Your task to perform on an android device: turn off location history Image 0: 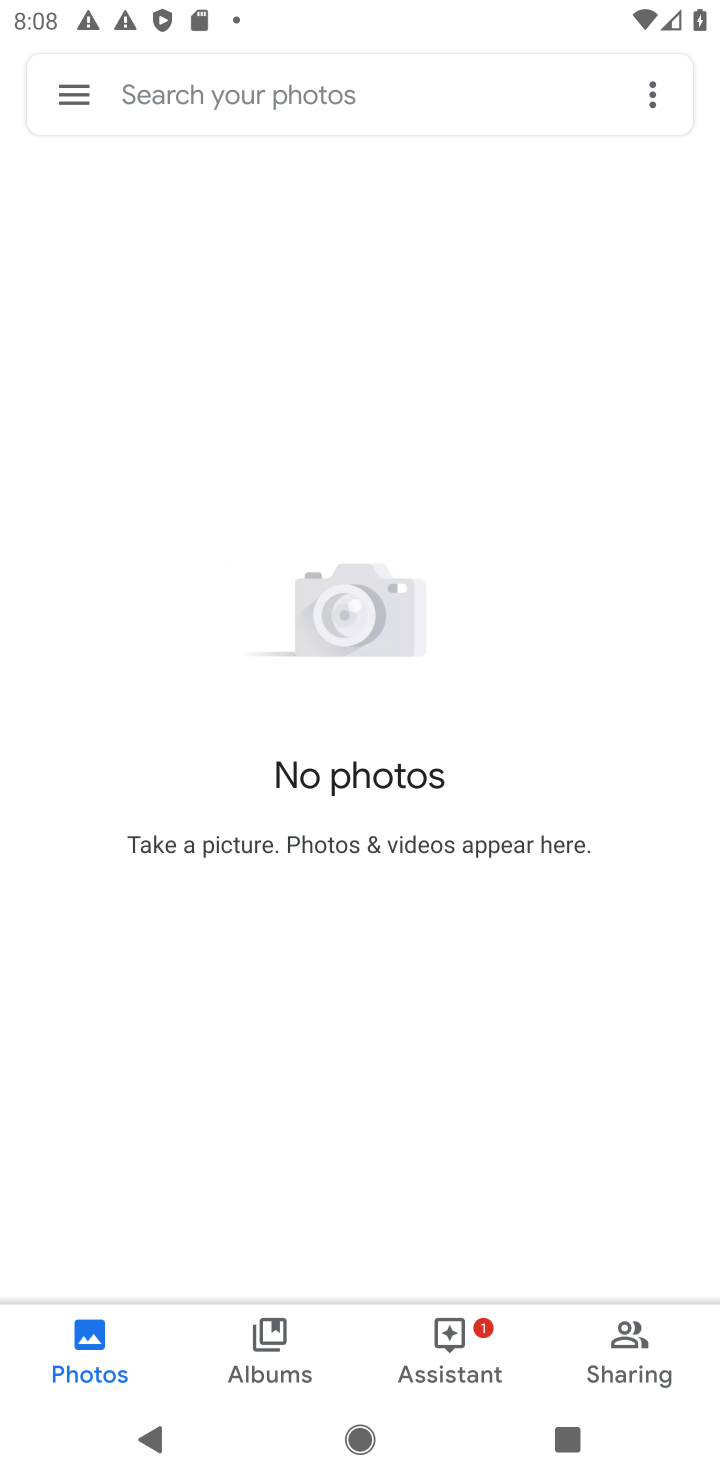
Step 0: press home button
Your task to perform on an android device: turn off location history Image 1: 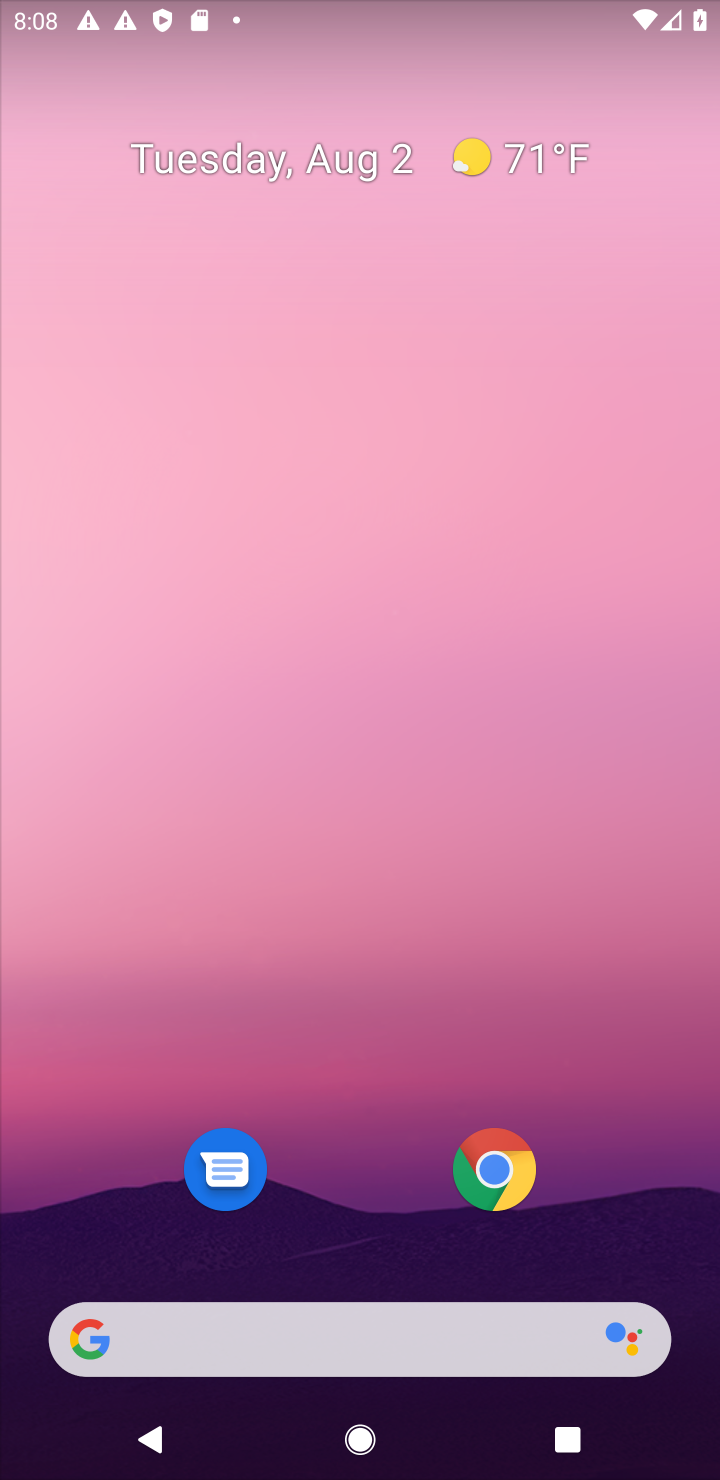
Step 1: drag from (335, 1132) to (401, 2)
Your task to perform on an android device: turn off location history Image 2: 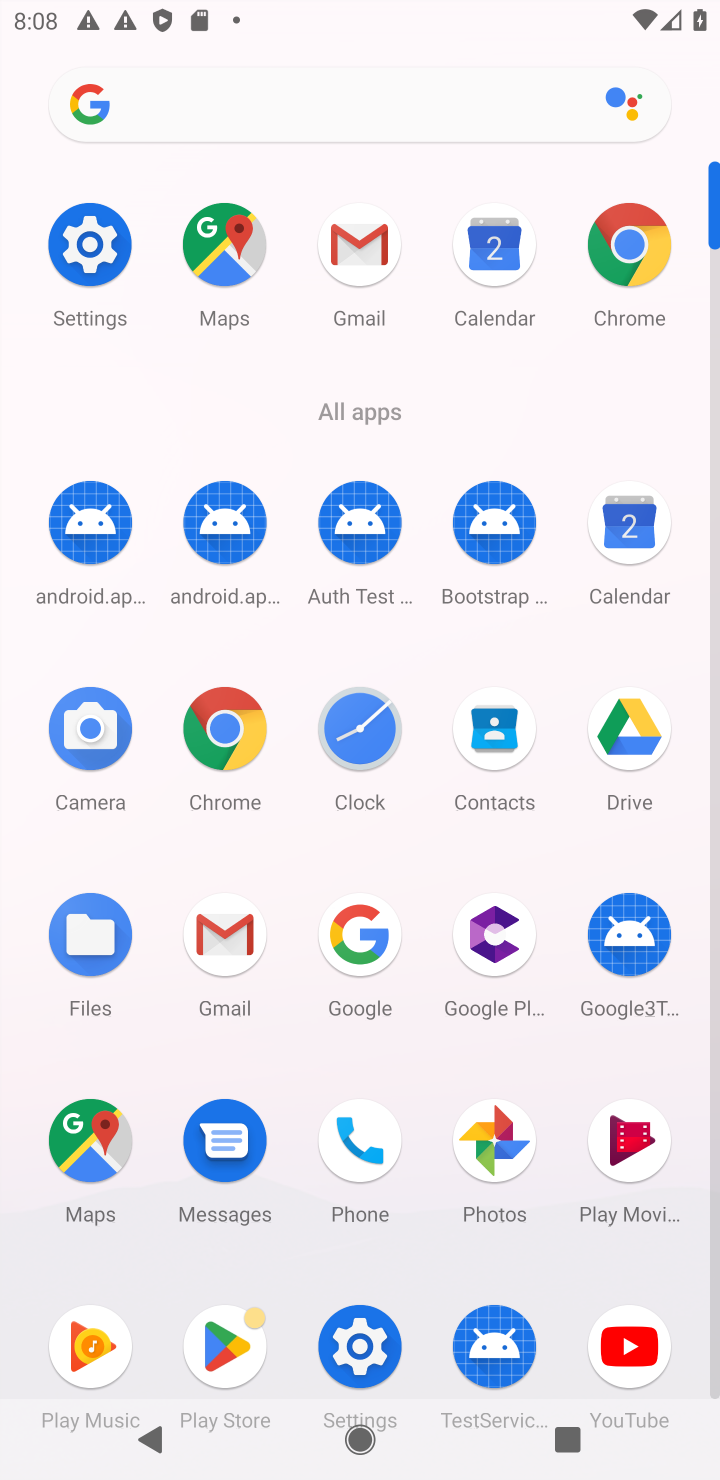
Step 2: click (88, 237)
Your task to perform on an android device: turn off location history Image 3: 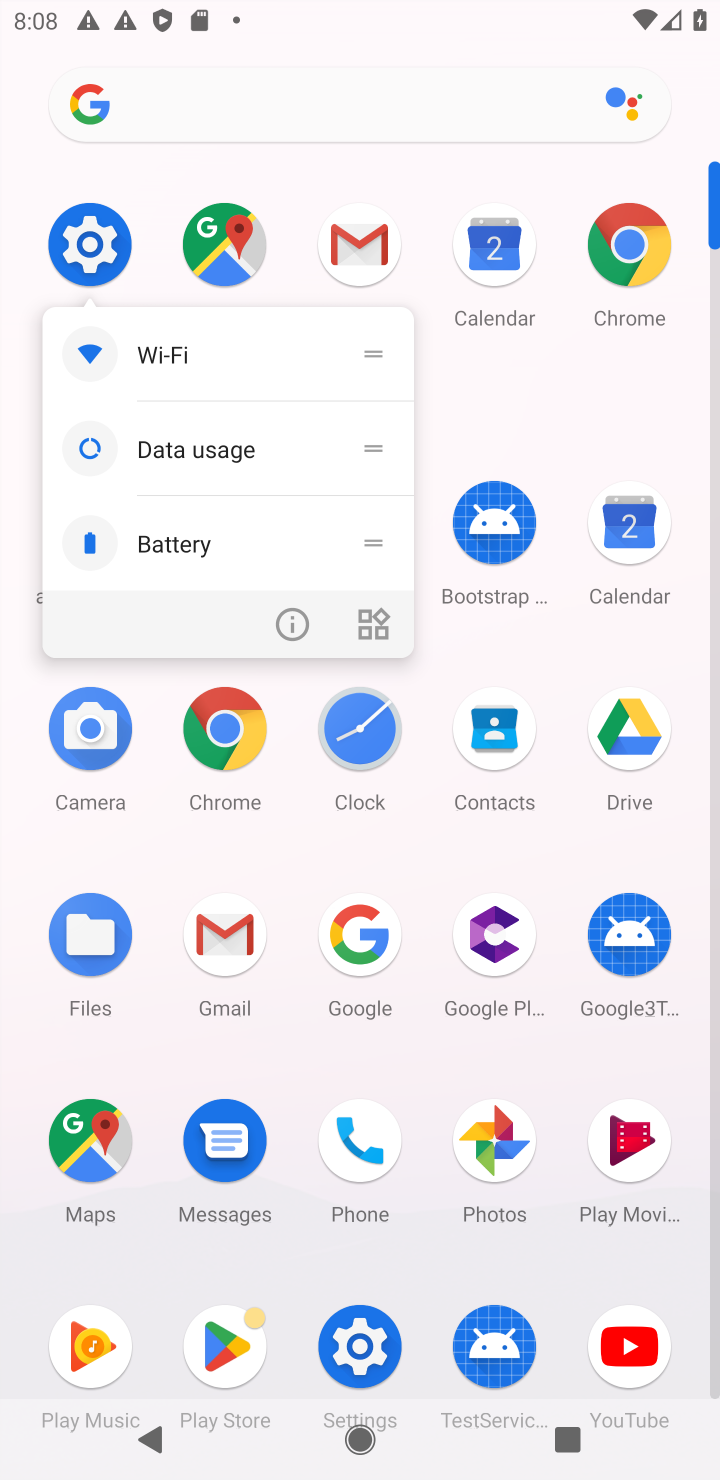
Step 3: click (88, 247)
Your task to perform on an android device: turn off location history Image 4: 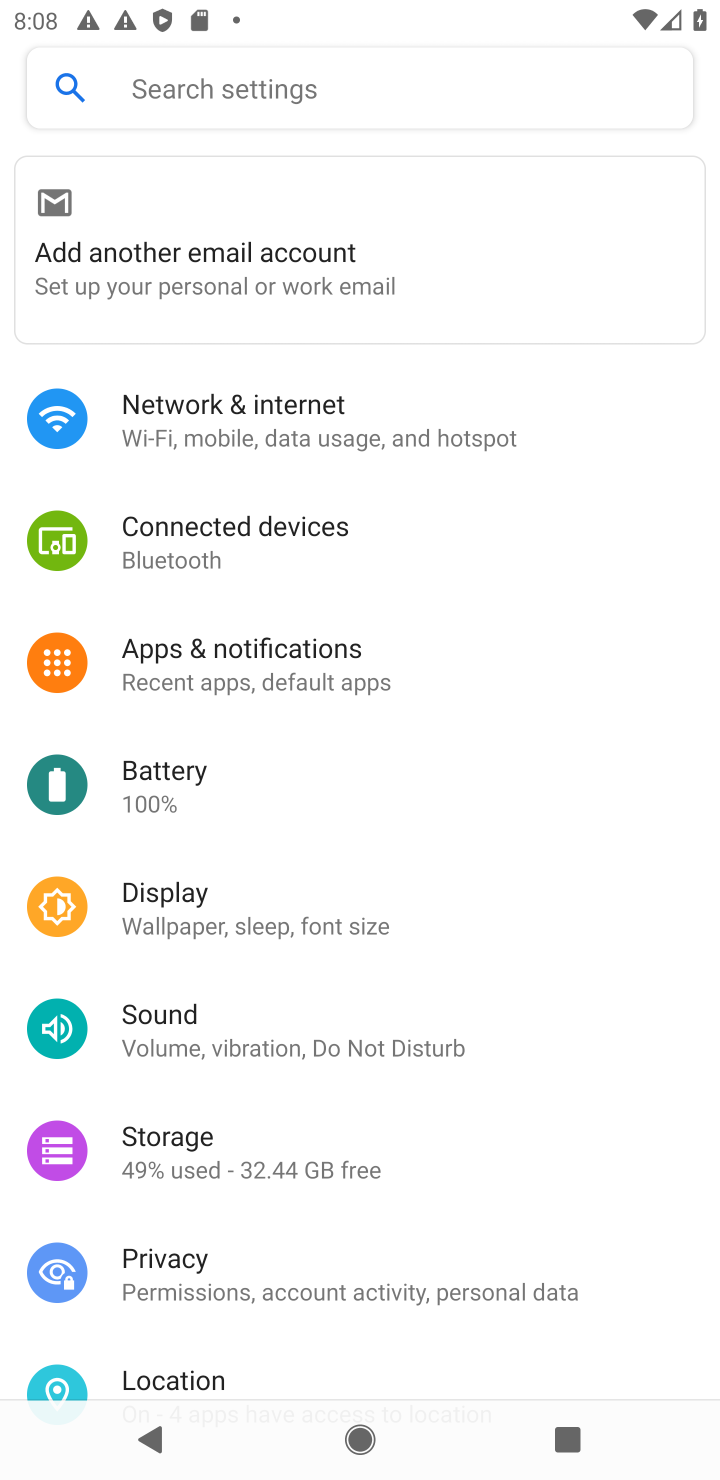
Step 4: drag from (356, 1097) to (436, 655)
Your task to perform on an android device: turn off location history Image 5: 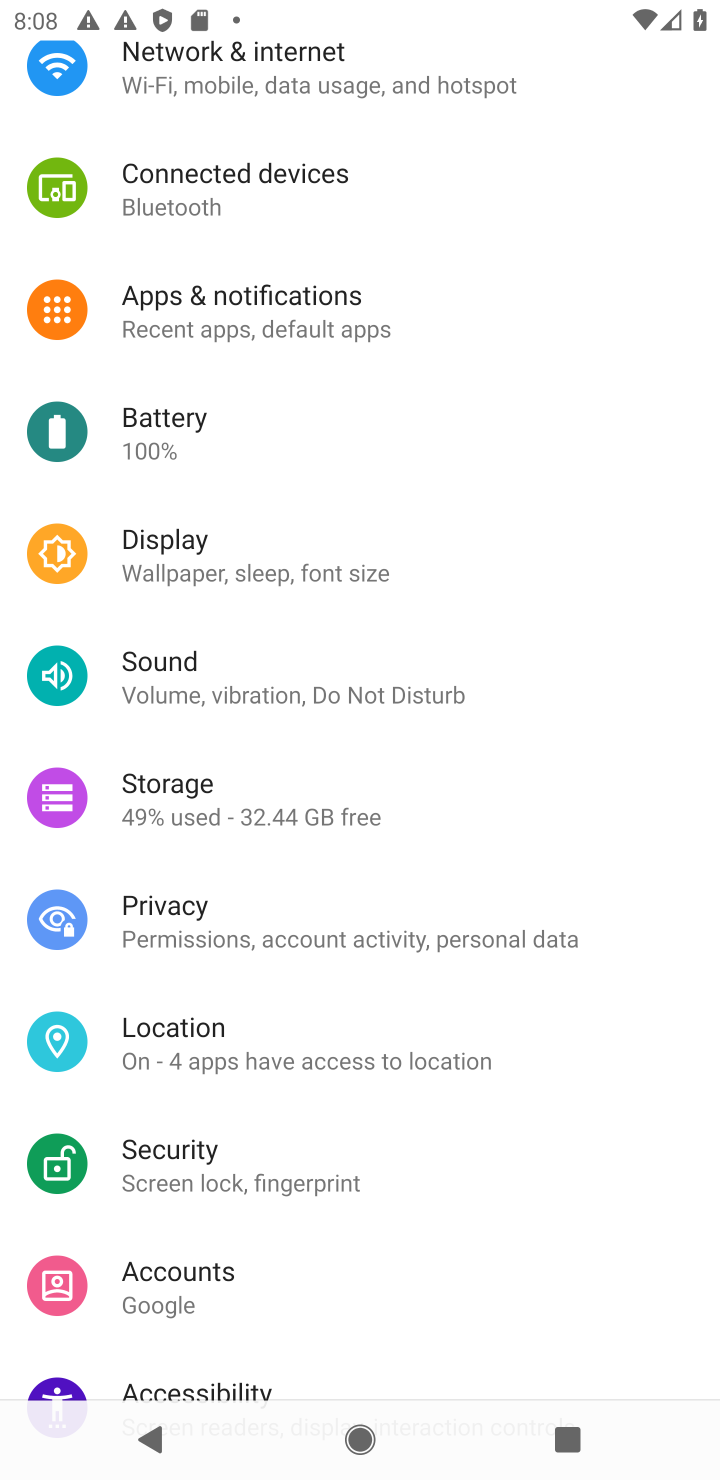
Step 5: click (359, 1042)
Your task to perform on an android device: turn off location history Image 6: 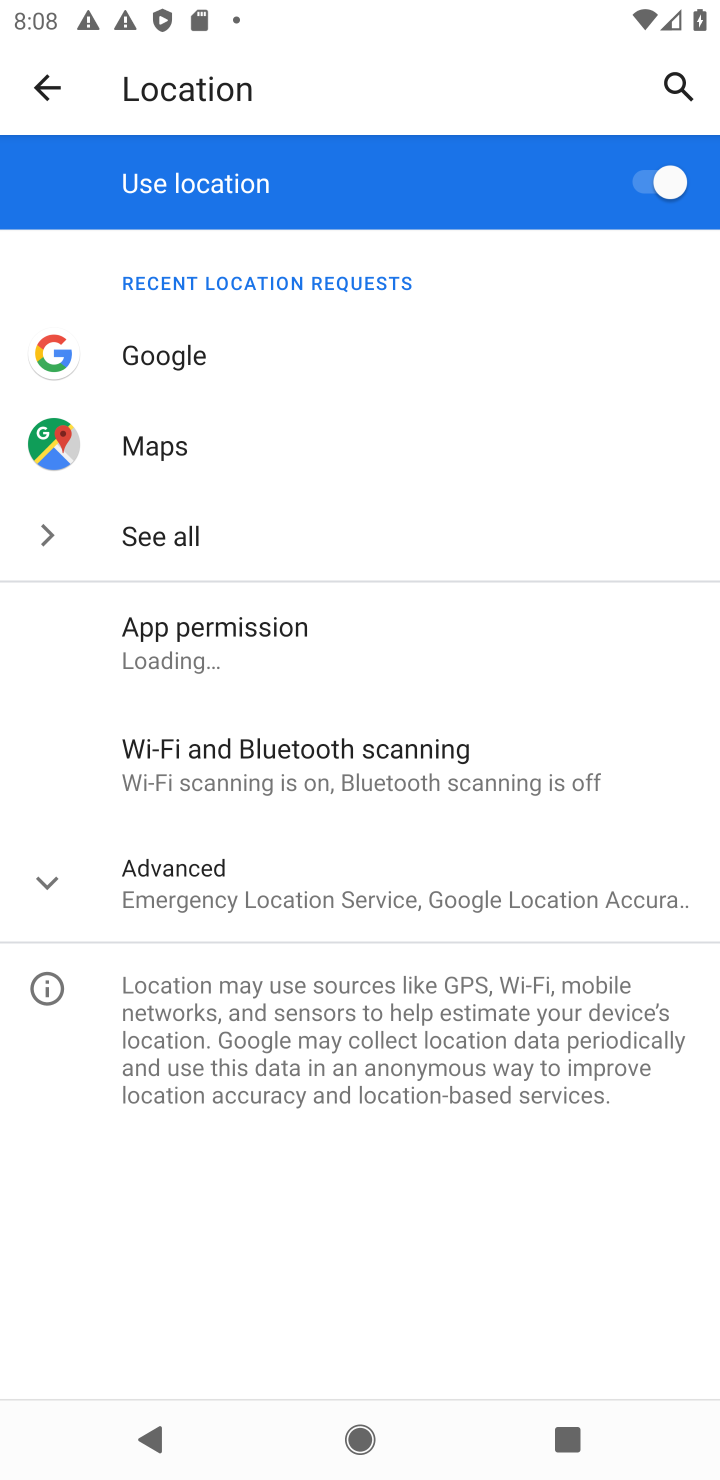
Step 6: click (50, 887)
Your task to perform on an android device: turn off location history Image 7: 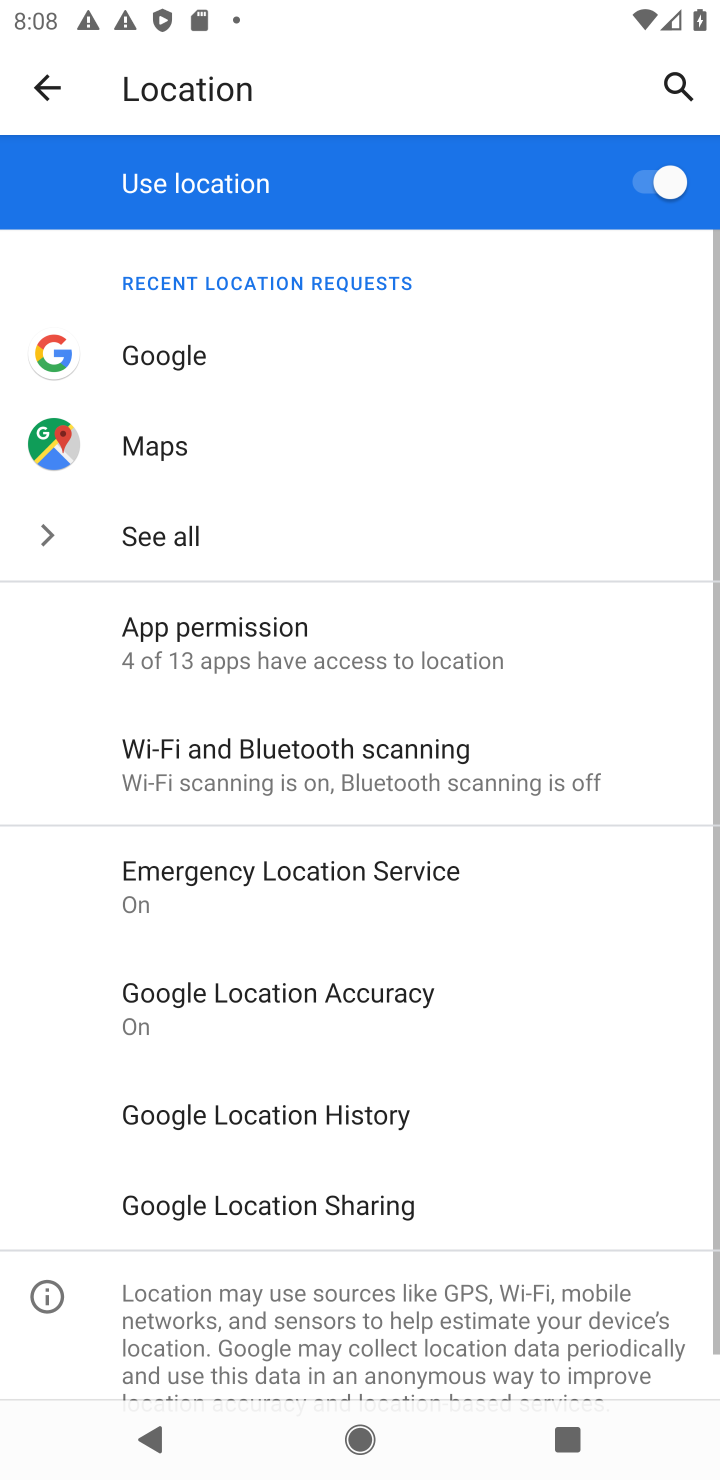
Step 7: click (184, 1106)
Your task to perform on an android device: turn off location history Image 8: 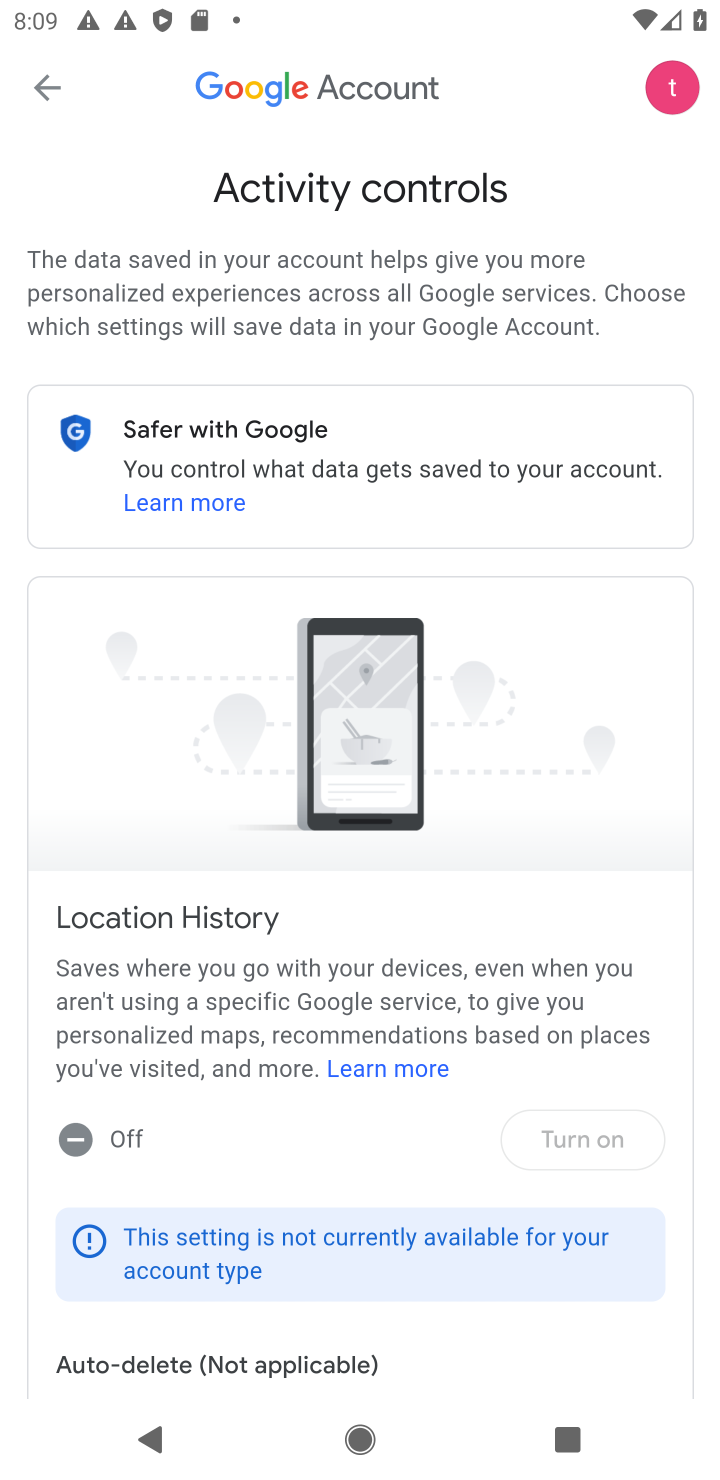
Step 8: task complete